Your task to perform on an android device: visit the assistant section in the google photos Image 0: 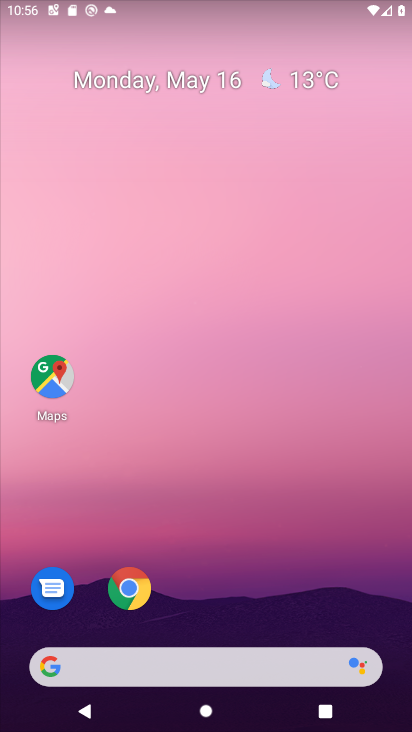
Step 0: press home button
Your task to perform on an android device: visit the assistant section in the google photos Image 1: 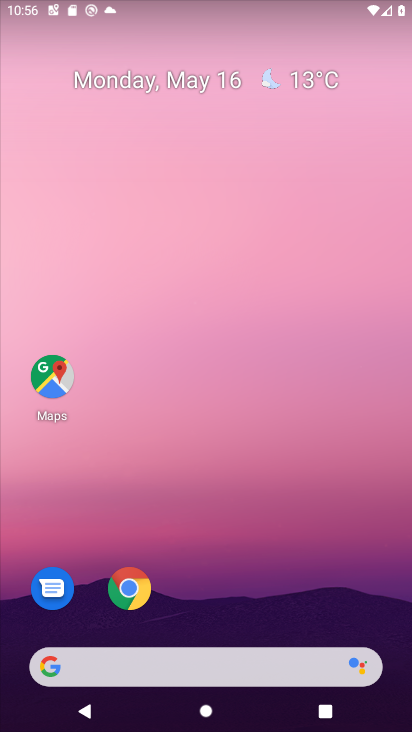
Step 1: drag from (216, 627) to (246, 6)
Your task to perform on an android device: visit the assistant section in the google photos Image 2: 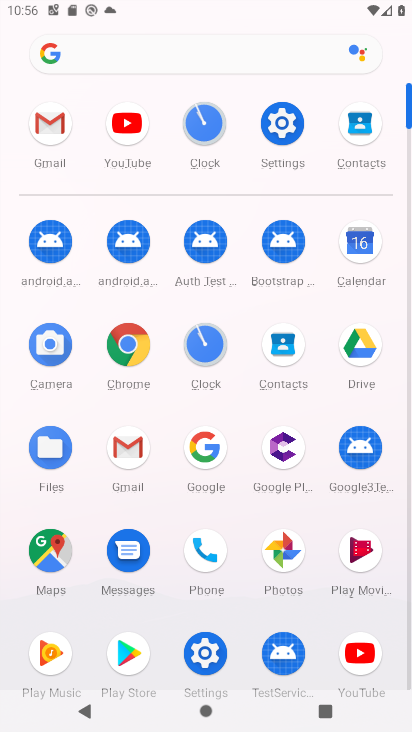
Step 2: click (280, 546)
Your task to perform on an android device: visit the assistant section in the google photos Image 3: 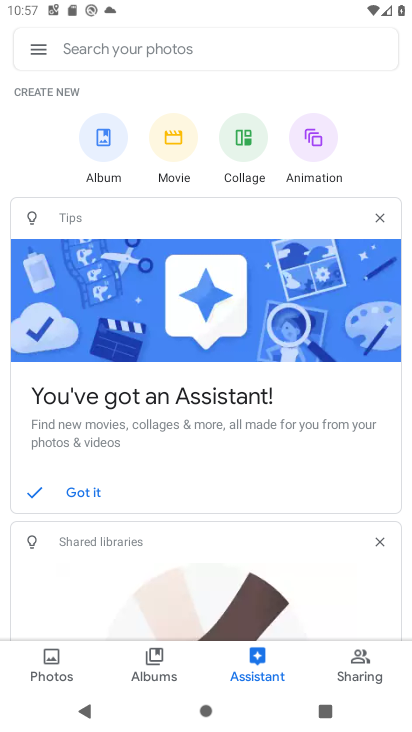
Step 3: task complete